Your task to perform on an android device: change your default location settings in chrome Image 0: 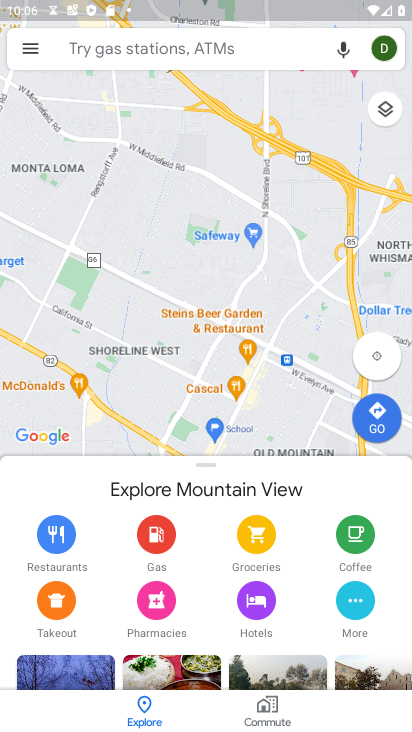
Step 0: press home button
Your task to perform on an android device: change your default location settings in chrome Image 1: 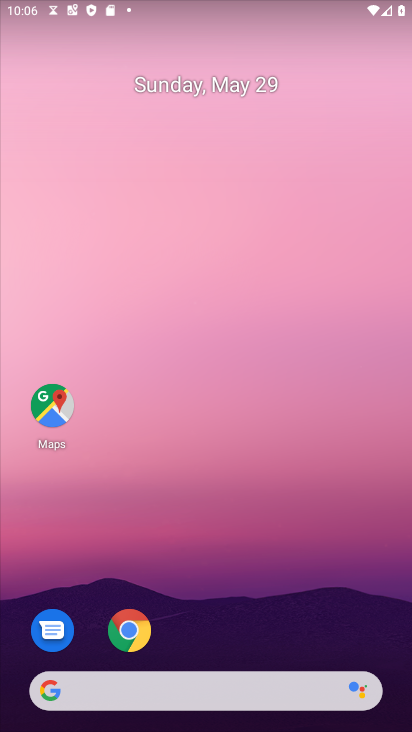
Step 1: drag from (264, 627) to (286, 130)
Your task to perform on an android device: change your default location settings in chrome Image 2: 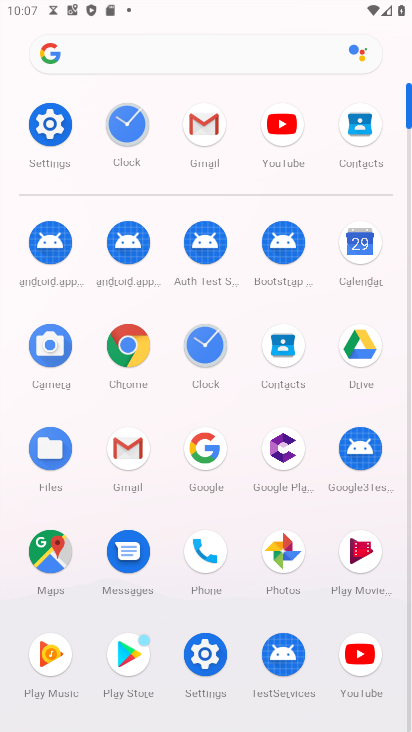
Step 2: click (126, 346)
Your task to perform on an android device: change your default location settings in chrome Image 3: 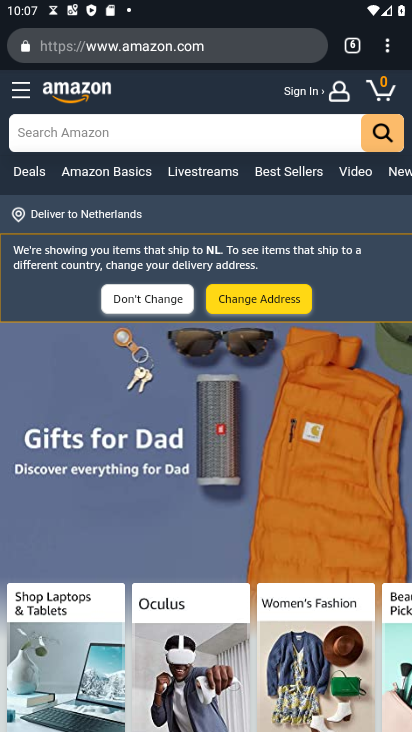
Step 3: click (394, 54)
Your task to perform on an android device: change your default location settings in chrome Image 4: 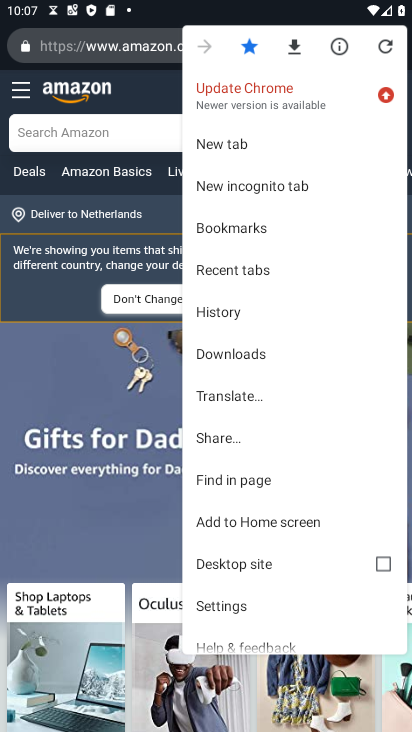
Step 4: click (238, 601)
Your task to perform on an android device: change your default location settings in chrome Image 5: 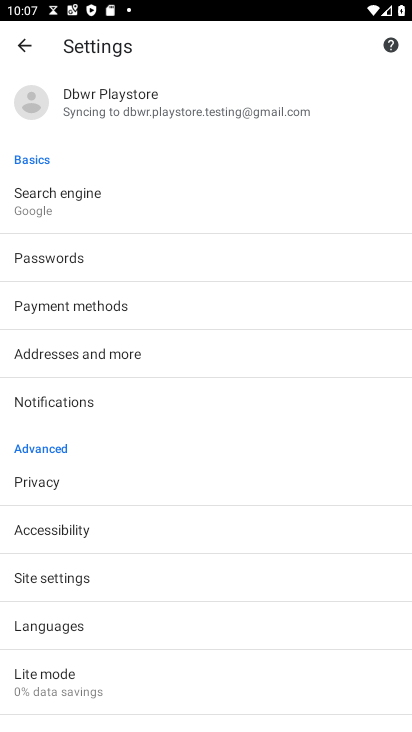
Step 5: click (81, 571)
Your task to perform on an android device: change your default location settings in chrome Image 6: 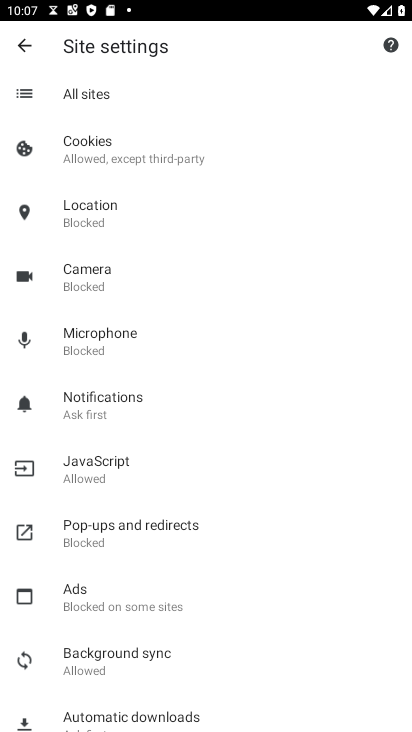
Step 6: click (116, 215)
Your task to perform on an android device: change your default location settings in chrome Image 7: 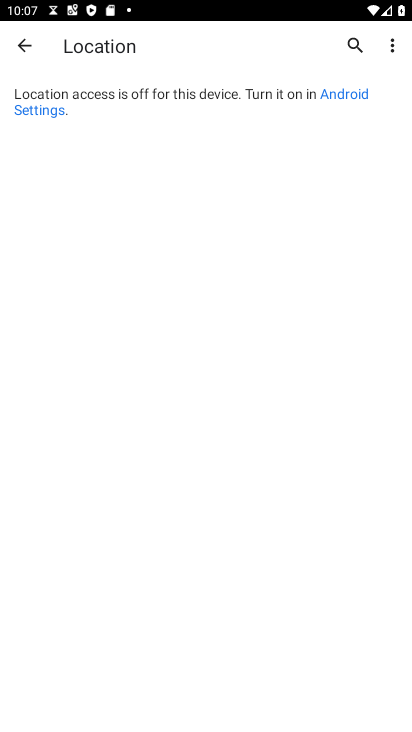
Step 7: task complete